Your task to perform on an android device: turn on translation in the chrome app Image 0: 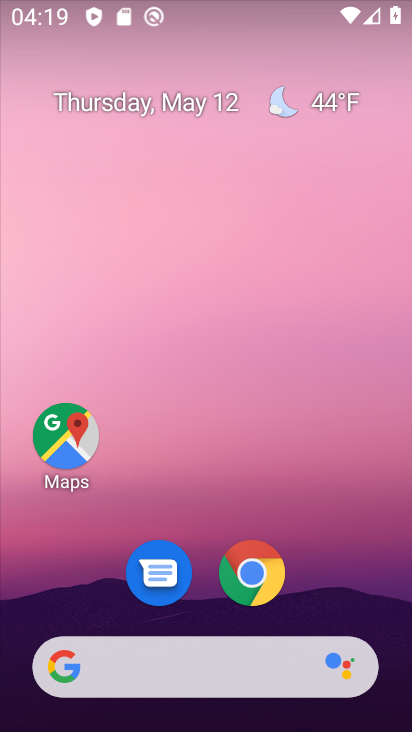
Step 0: click (255, 572)
Your task to perform on an android device: turn on translation in the chrome app Image 1: 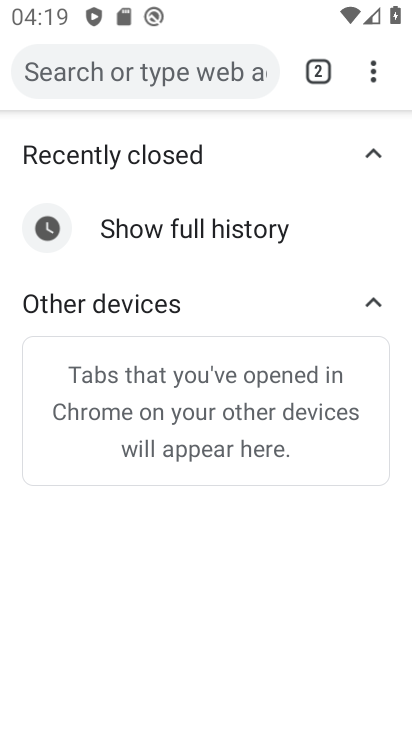
Step 1: click (373, 79)
Your task to perform on an android device: turn on translation in the chrome app Image 2: 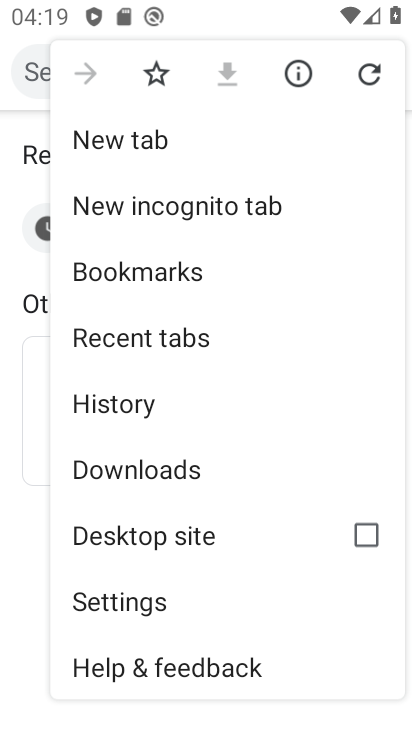
Step 2: click (133, 605)
Your task to perform on an android device: turn on translation in the chrome app Image 3: 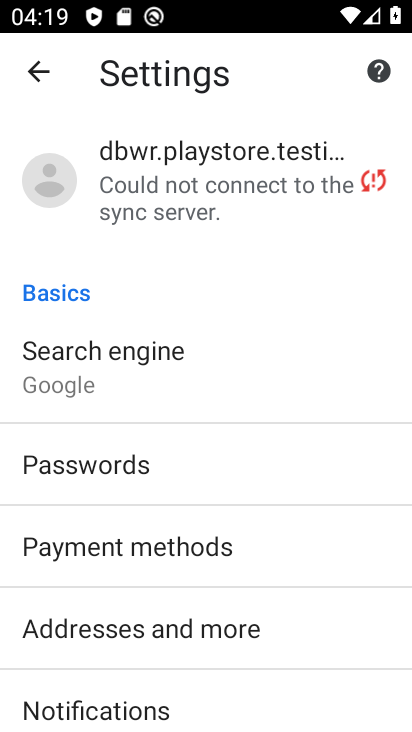
Step 3: drag from (303, 636) to (227, 264)
Your task to perform on an android device: turn on translation in the chrome app Image 4: 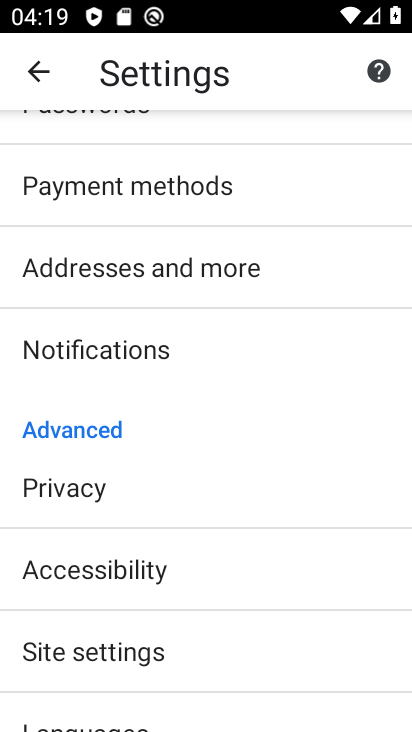
Step 4: drag from (278, 628) to (271, 309)
Your task to perform on an android device: turn on translation in the chrome app Image 5: 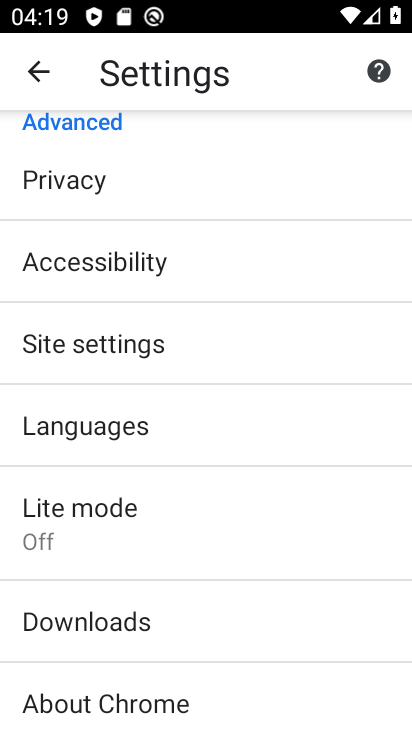
Step 5: click (69, 436)
Your task to perform on an android device: turn on translation in the chrome app Image 6: 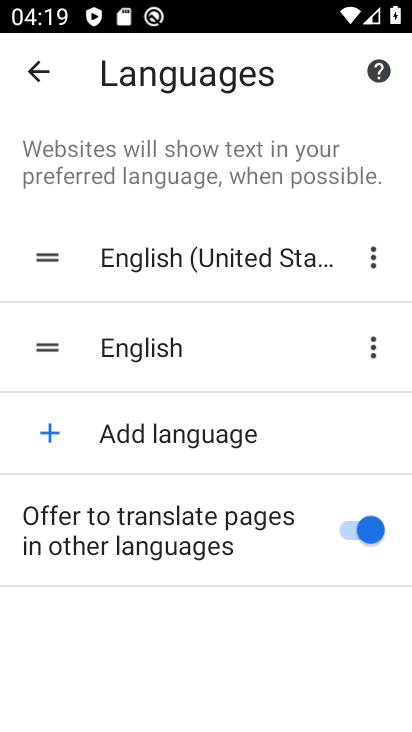
Step 6: task complete